Your task to perform on an android device: Open Android settings Image 0: 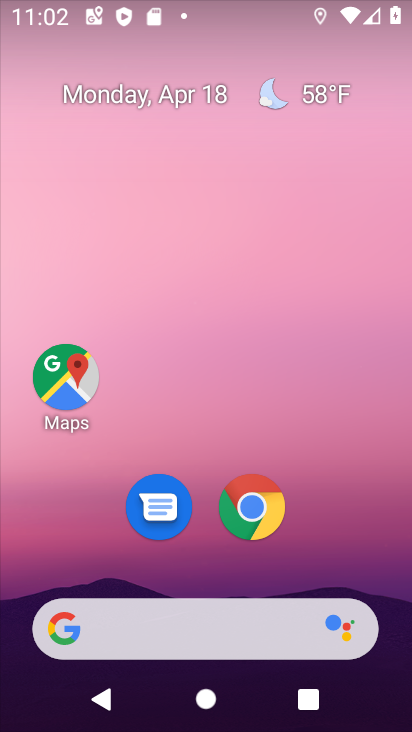
Step 0: drag from (234, 580) to (295, 6)
Your task to perform on an android device: Open Android settings Image 1: 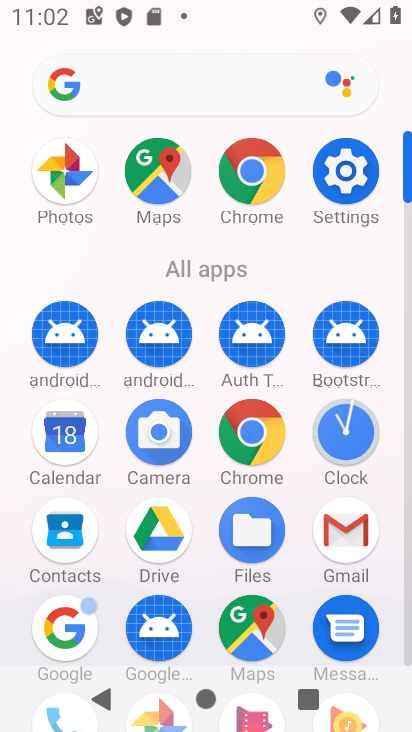
Step 1: click (333, 178)
Your task to perform on an android device: Open Android settings Image 2: 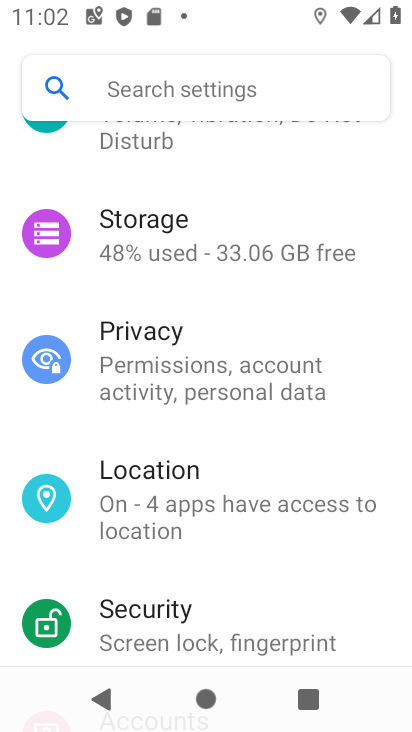
Step 2: drag from (213, 608) to (301, 29)
Your task to perform on an android device: Open Android settings Image 3: 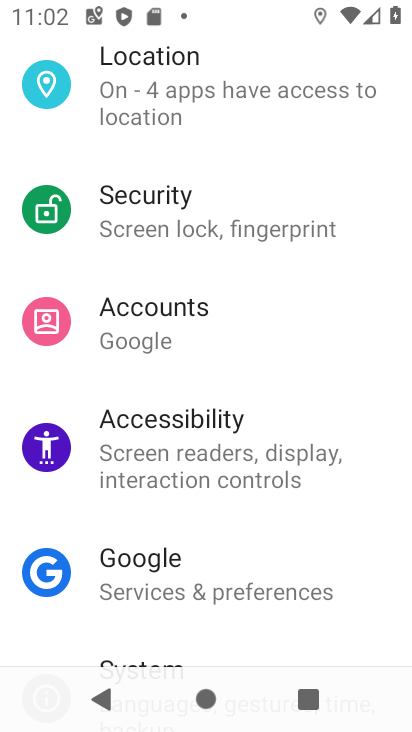
Step 3: drag from (211, 475) to (340, 19)
Your task to perform on an android device: Open Android settings Image 4: 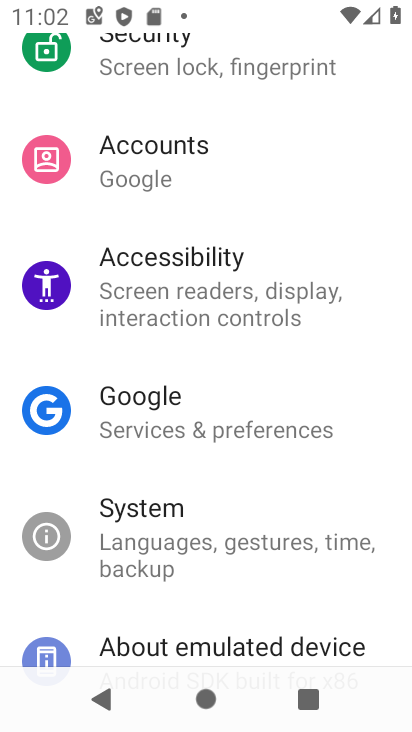
Step 4: drag from (168, 620) to (303, 45)
Your task to perform on an android device: Open Android settings Image 5: 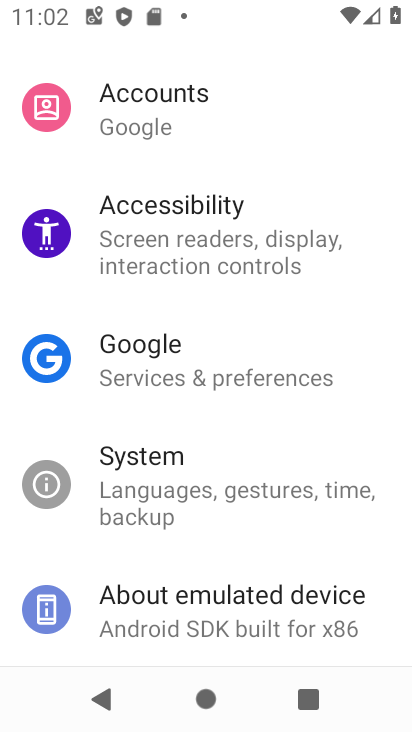
Step 5: click (177, 588)
Your task to perform on an android device: Open Android settings Image 6: 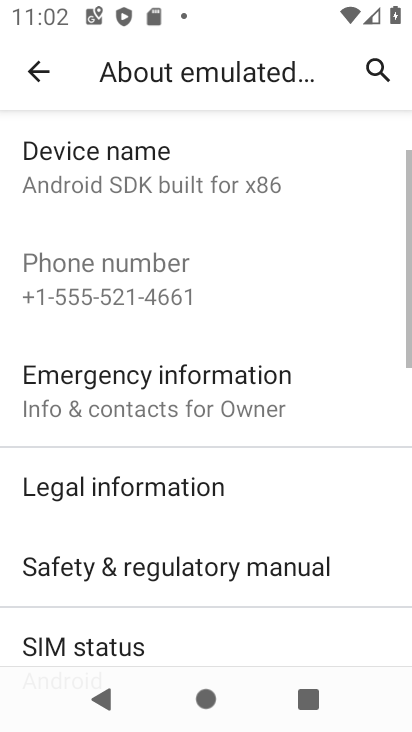
Step 6: drag from (127, 547) to (243, 47)
Your task to perform on an android device: Open Android settings Image 7: 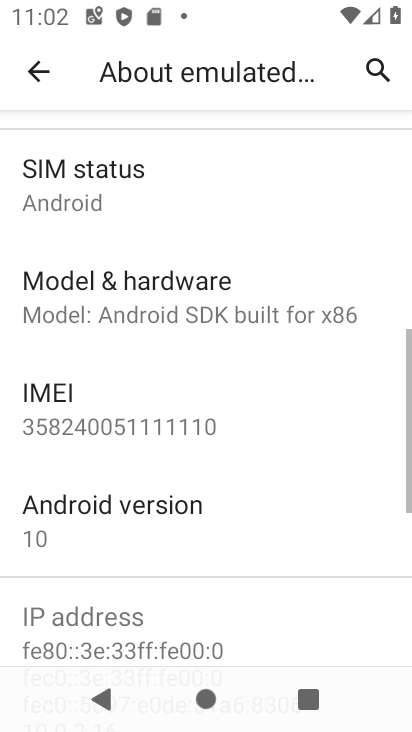
Step 7: click (134, 532)
Your task to perform on an android device: Open Android settings Image 8: 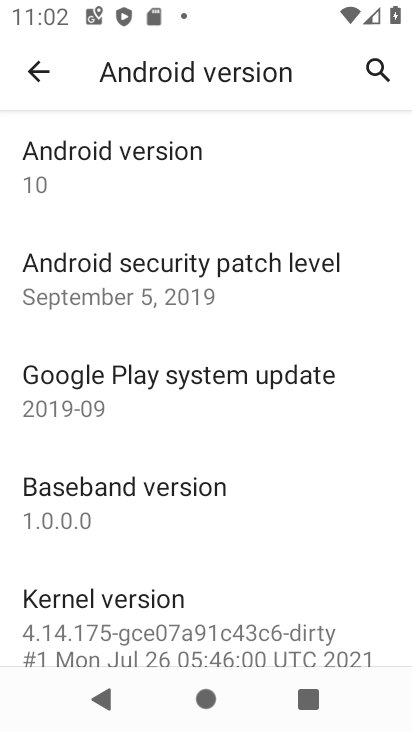
Step 8: click (130, 171)
Your task to perform on an android device: Open Android settings Image 9: 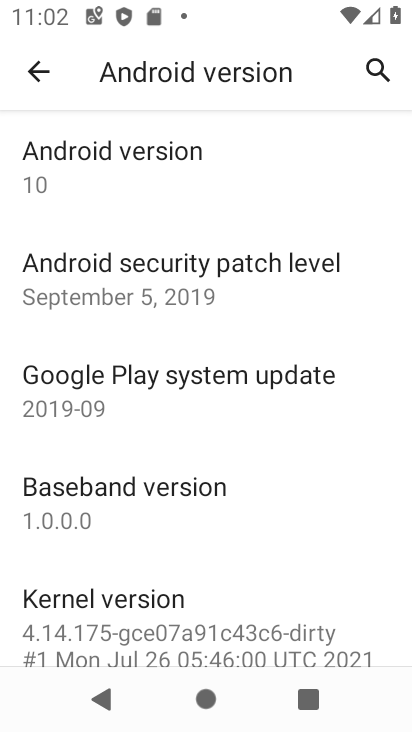
Step 9: task complete